Your task to perform on an android device: turn on the 12-hour format for clock Image 0: 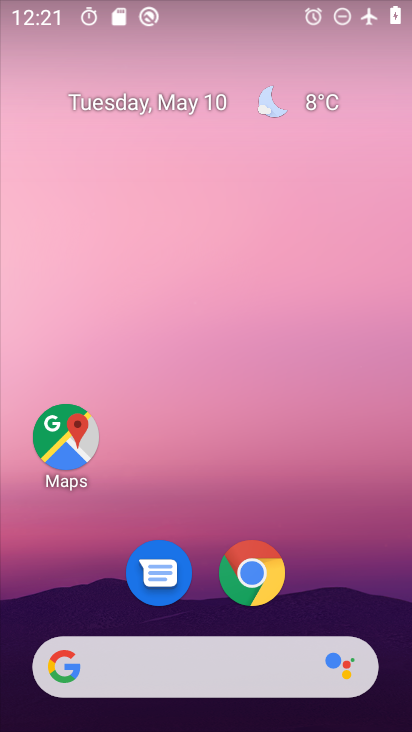
Step 0: drag from (339, 518) to (229, 114)
Your task to perform on an android device: turn on the 12-hour format for clock Image 1: 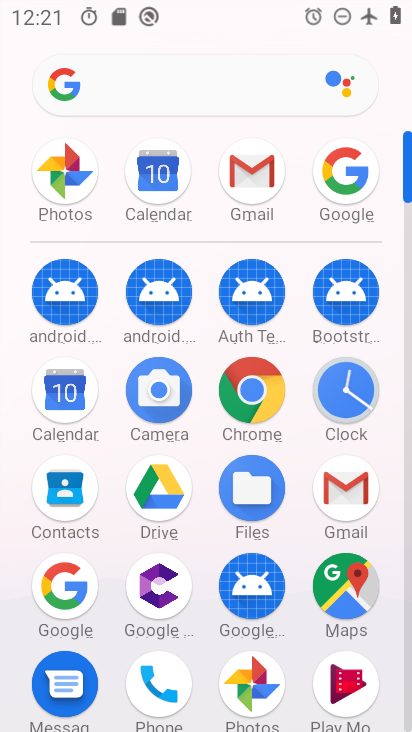
Step 1: click (351, 383)
Your task to perform on an android device: turn on the 12-hour format for clock Image 2: 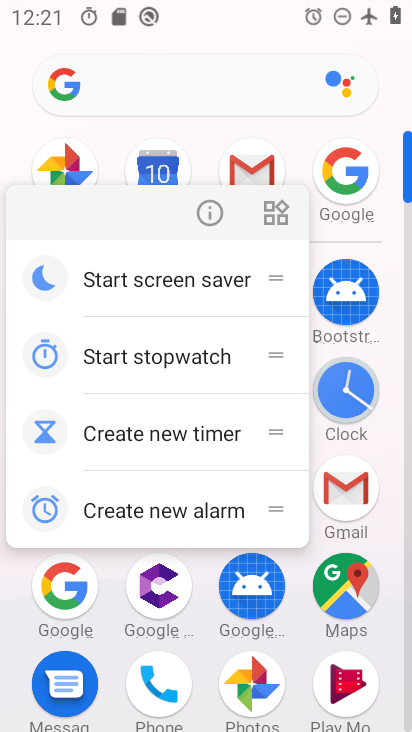
Step 2: click (340, 368)
Your task to perform on an android device: turn on the 12-hour format for clock Image 3: 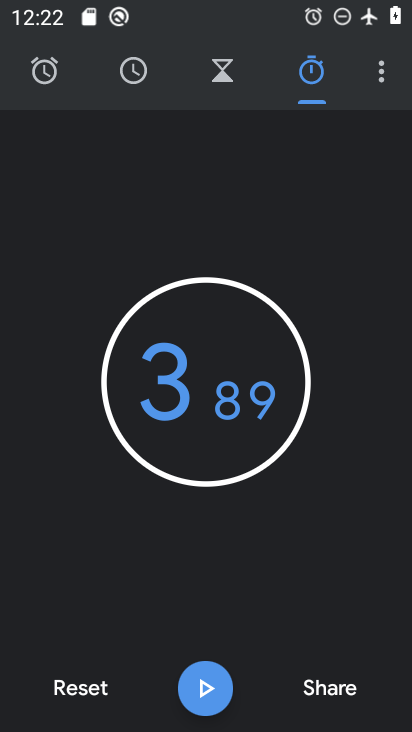
Step 3: drag from (376, 67) to (223, 146)
Your task to perform on an android device: turn on the 12-hour format for clock Image 4: 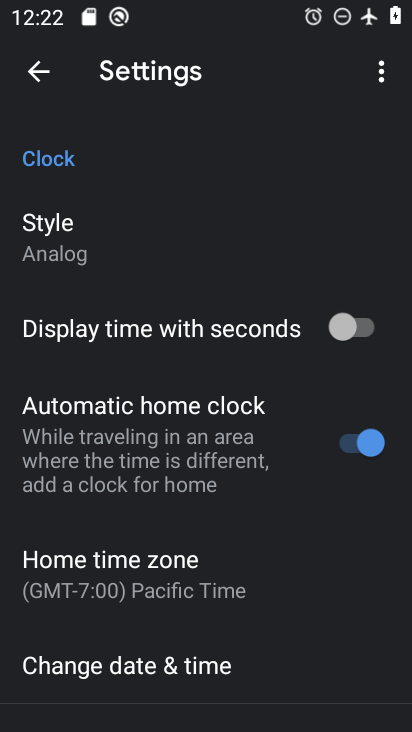
Step 4: drag from (266, 626) to (202, 216)
Your task to perform on an android device: turn on the 12-hour format for clock Image 5: 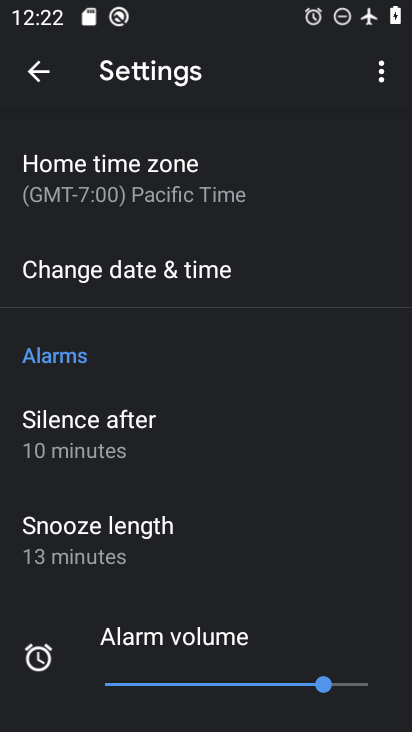
Step 5: click (138, 271)
Your task to perform on an android device: turn on the 12-hour format for clock Image 6: 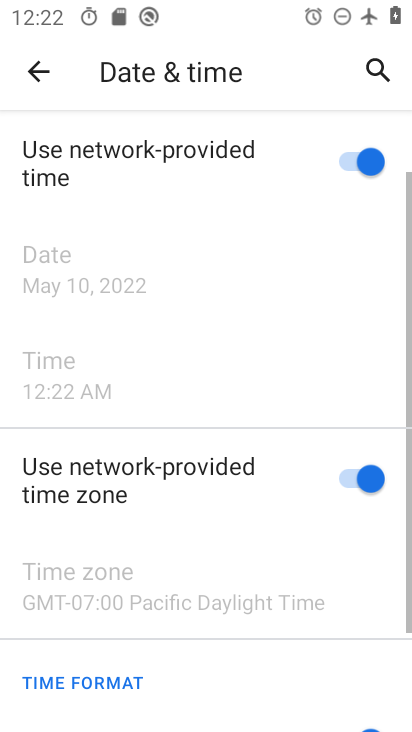
Step 6: task complete